Your task to perform on an android device: Open the stopwatch Image 0: 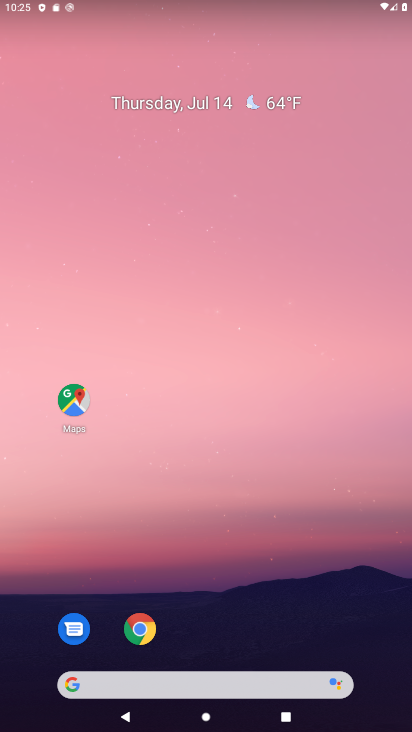
Step 0: drag from (200, 564) to (200, 270)
Your task to perform on an android device: Open the stopwatch Image 1: 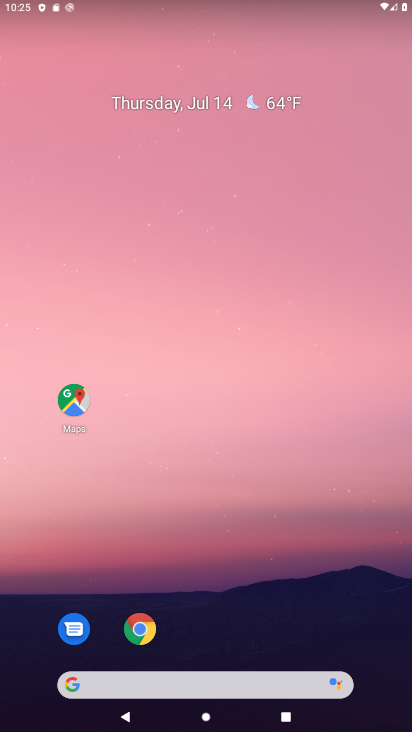
Step 1: drag from (158, 673) to (177, 143)
Your task to perform on an android device: Open the stopwatch Image 2: 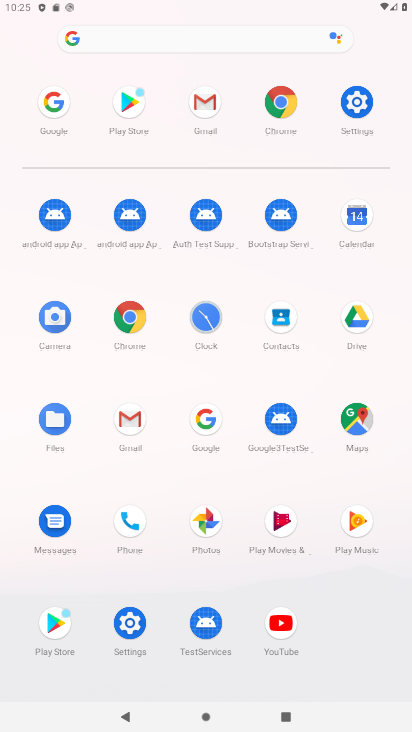
Step 2: click (209, 314)
Your task to perform on an android device: Open the stopwatch Image 3: 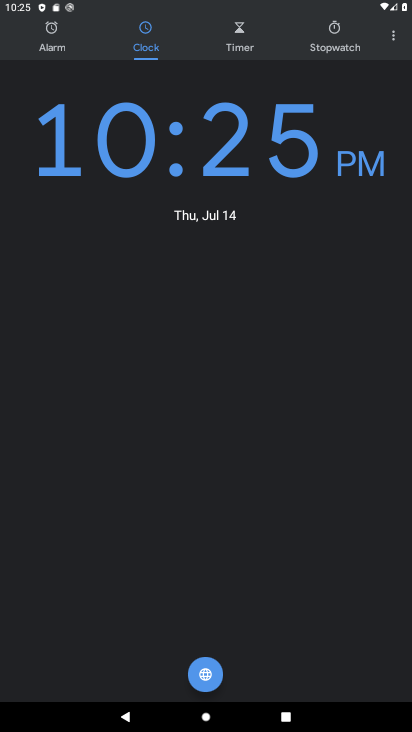
Step 3: click (337, 40)
Your task to perform on an android device: Open the stopwatch Image 4: 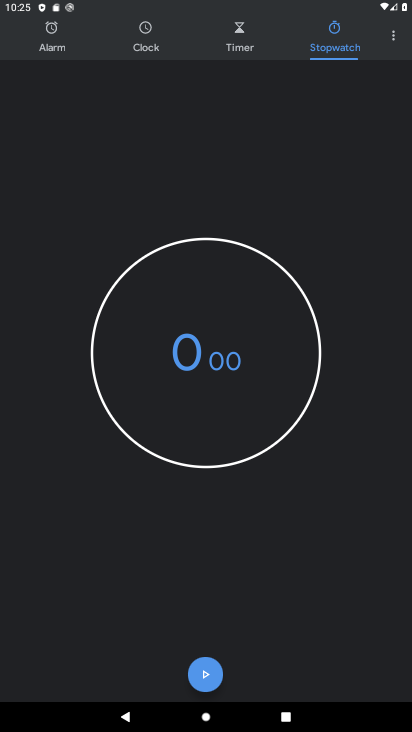
Step 4: task complete